Your task to perform on an android device: turn off airplane mode Image 0: 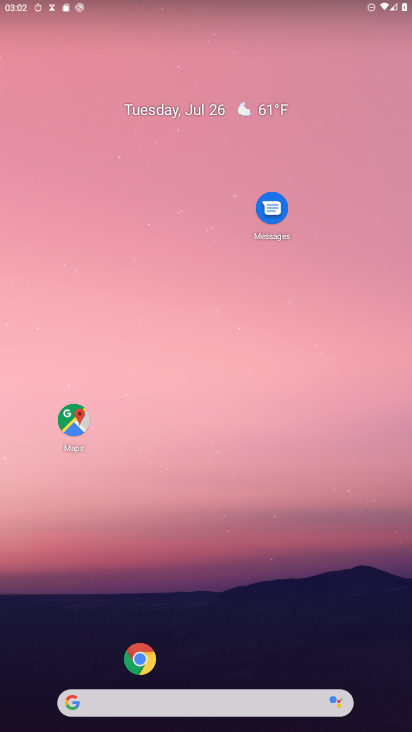
Step 0: drag from (239, 296) to (303, 203)
Your task to perform on an android device: turn off airplane mode Image 1: 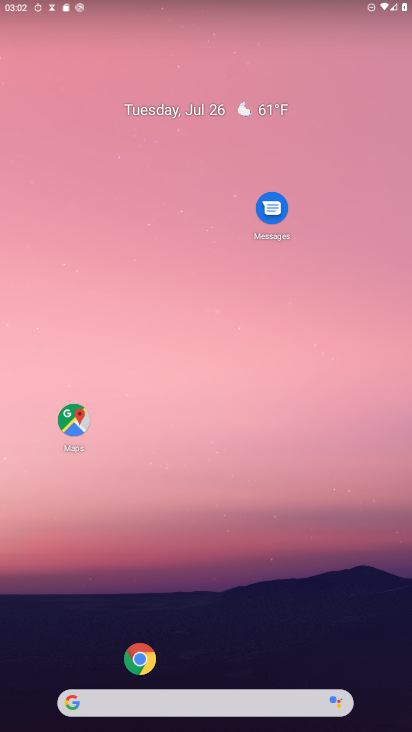
Step 1: drag from (38, 667) to (220, 115)
Your task to perform on an android device: turn off airplane mode Image 2: 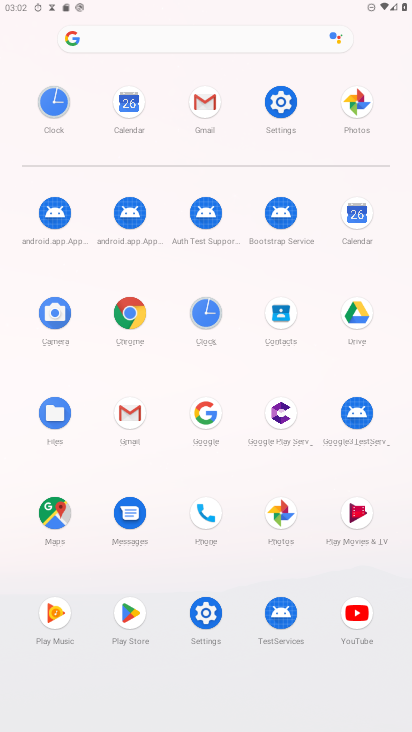
Step 2: click (223, 646)
Your task to perform on an android device: turn off airplane mode Image 3: 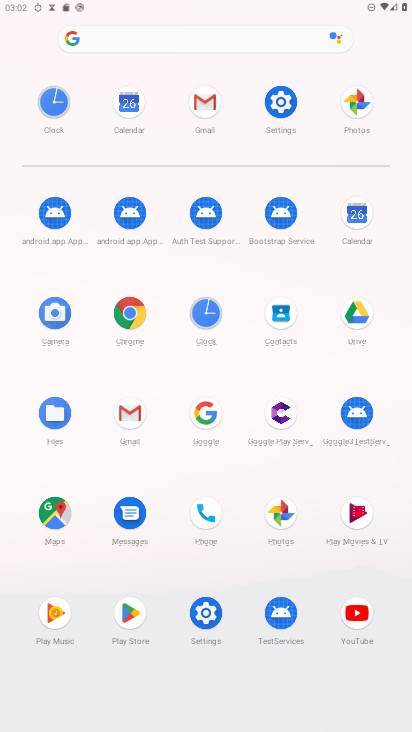
Step 3: click (212, 612)
Your task to perform on an android device: turn off airplane mode Image 4: 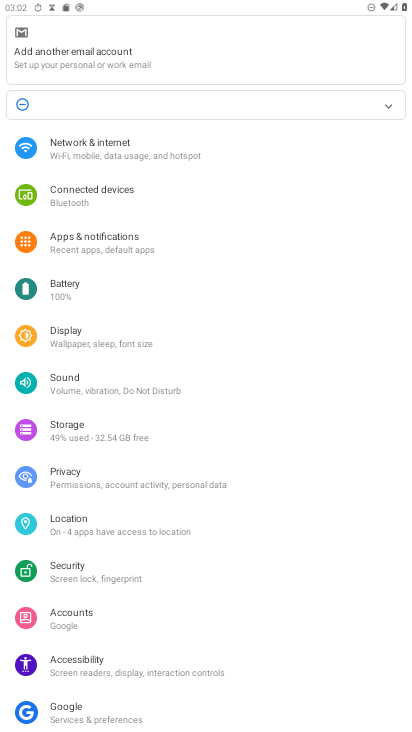
Step 4: click (99, 141)
Your task to perform on an android device: turn off airplane mode Image 5: 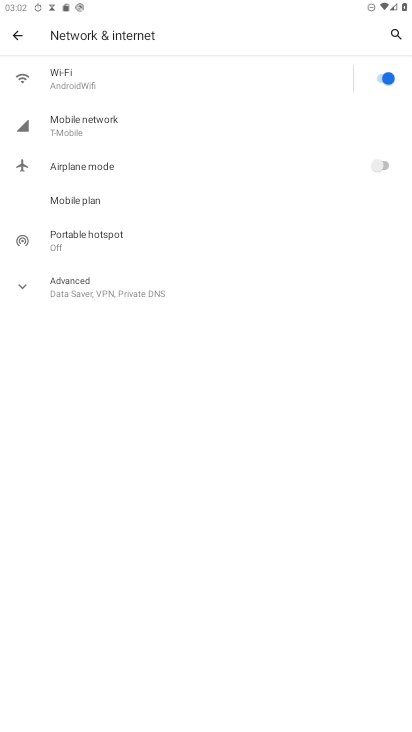
Step 5: click (390, 153)
Your task to perform on an android device: turn off airplane mode Image 6: 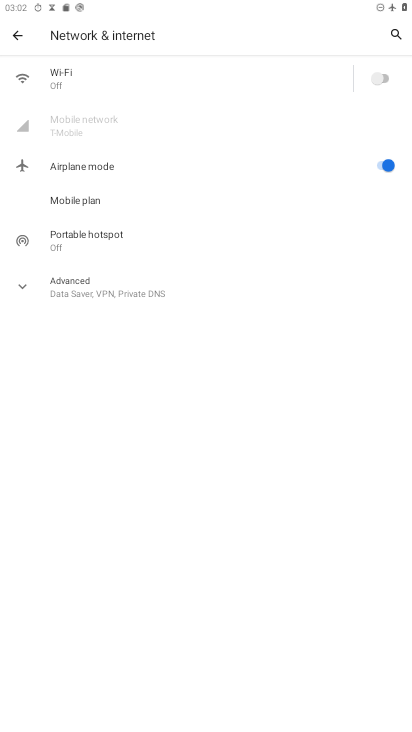
Step 6: task complete